Your task to perform on an android device: Open the phone app and click the voicemail tab. Image 0: 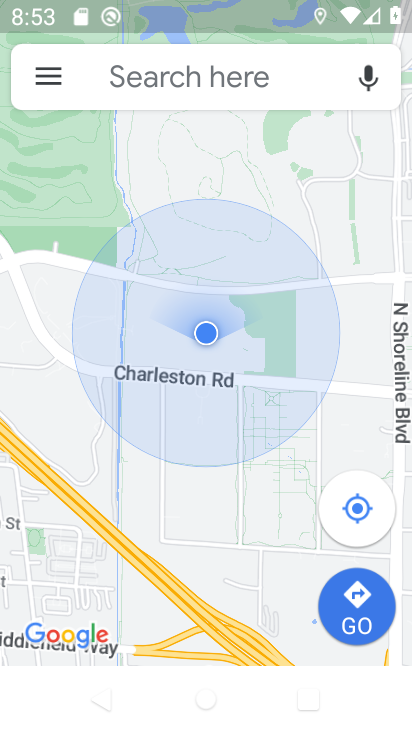
Step 0: press home button
Your task to perform on an android device: Open the phone app and click the voicemail tab. Image 1: 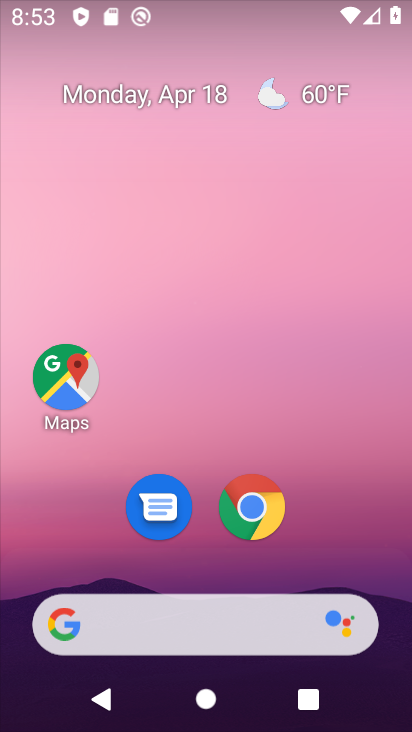
Step 1: drag from (210, 513) to (192, 245)
Your task to perform on an android device: Open the phone app and click the voicemail tab. Image 2: 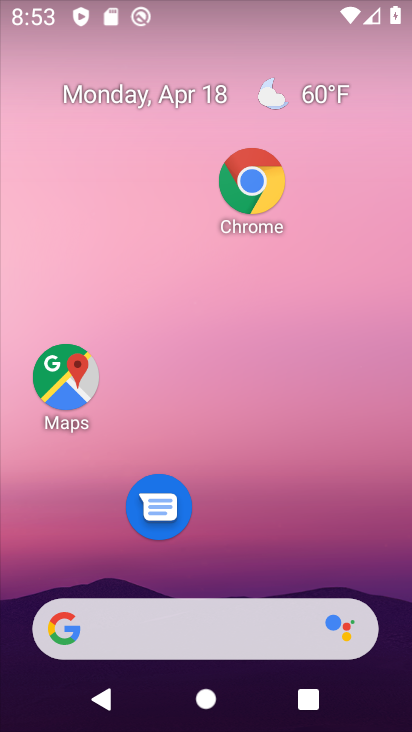
Step 2: drag from (187, 637) to (146, 145)
Your task to perform on an android device: Open the phone app and click the voicemail tab. Image 3: 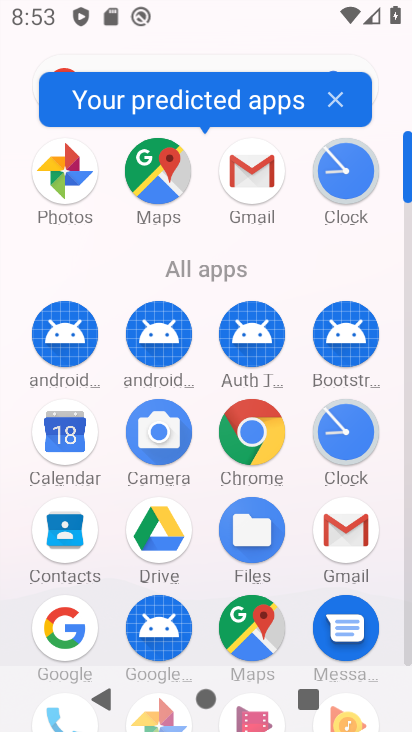
Step 3: drag from (111, 598) to (109, 129)
Your task to perform on an android device: Open the phone app and click the voicemail tab. Image 4: 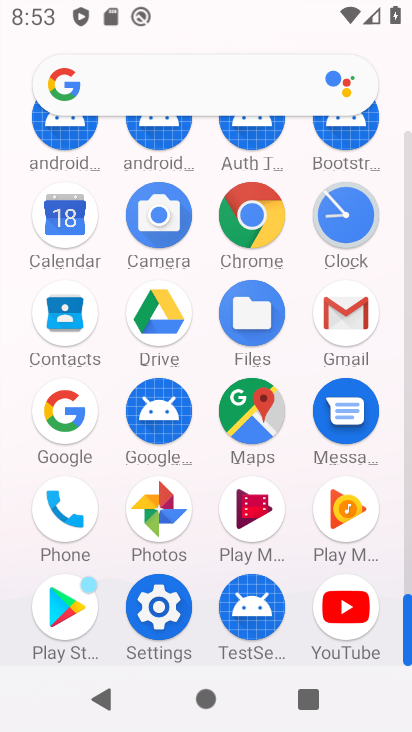
Step 4: click (81, 526)
Your task to perform on an android device: Open the phone app and click the voicemail tab. Image 5: 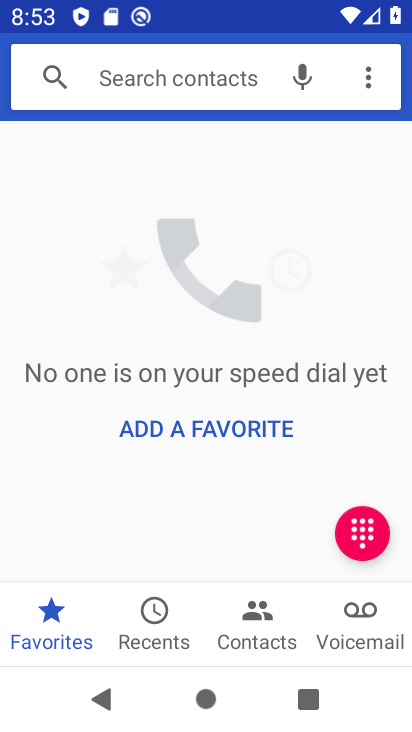
Step 5: click (346, 644)
Your task to perform on an android device: Open the phone app and click the voicemail tab. Image 6: 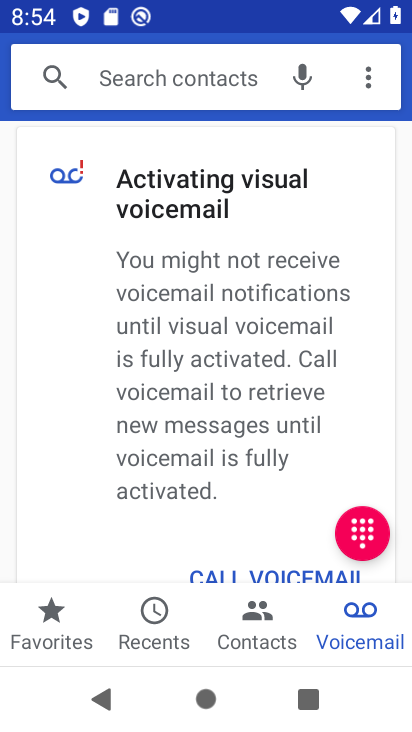
Step 6: task complete